Your task to perform on an android device: open app "McDonald's" Image 0: 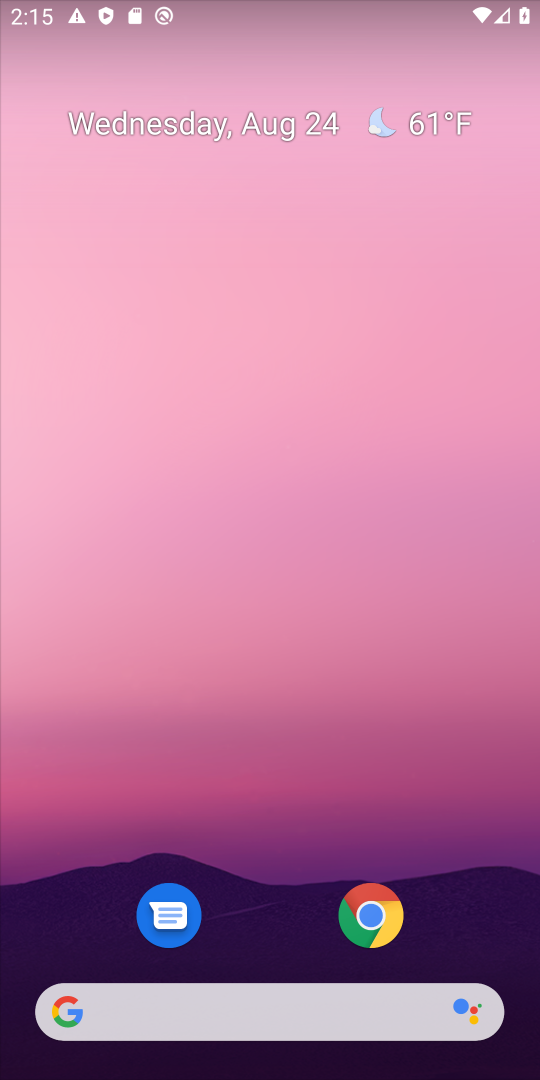
Step 0: drag from (281, 829) to (281, 193)
Your task to perform on an android device: open app "McDonald's" Image 1: 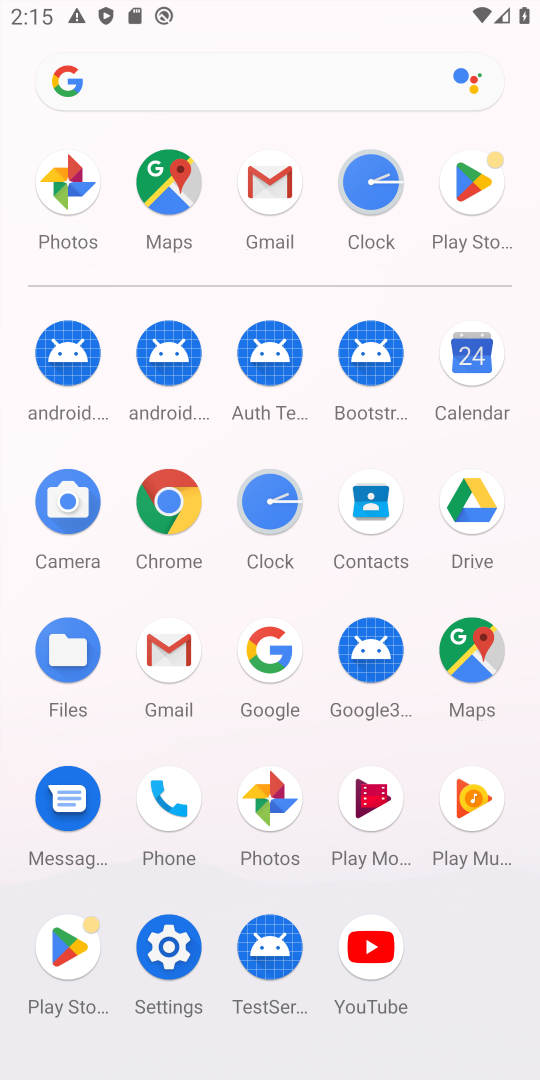
Step 1: click (462, 184)
Your task to perform on an android device: open app "McDonald's" Image 2: 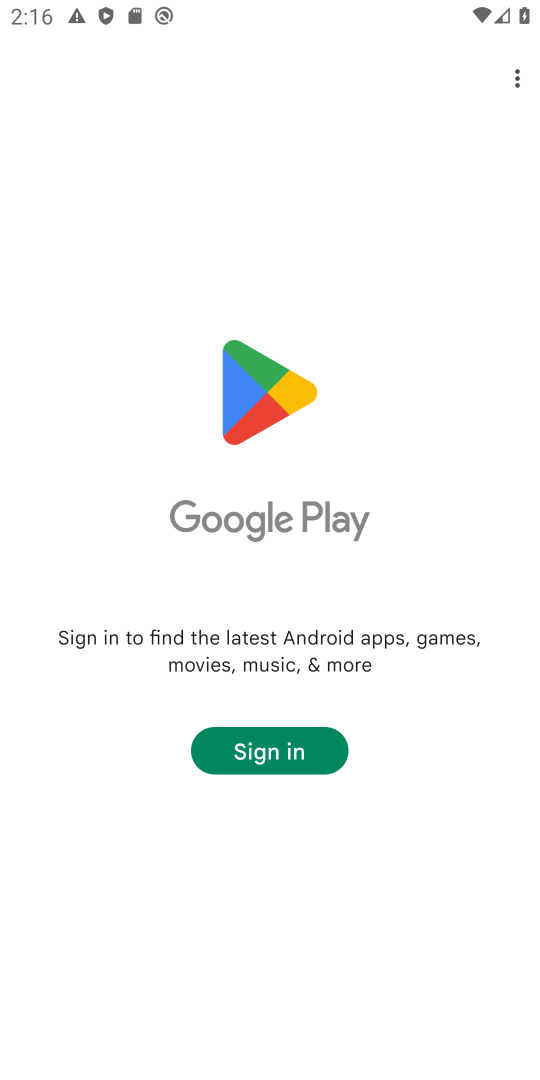
Step 2: task complete